Your task to perform on an android device: Open maps Image 0: 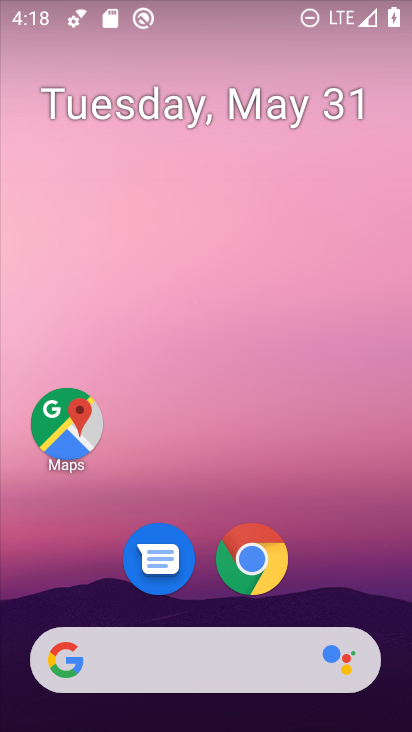
Step 0: drag from (235, 726) to (238, 17)
Your task to perform on an android device: Open maps Image 1: 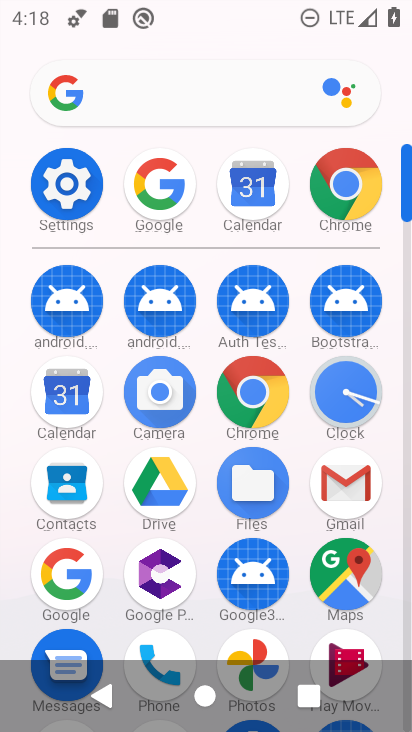
Step 1: click (359, 570)
Your task to perform on an android device: Open maps Image 2: 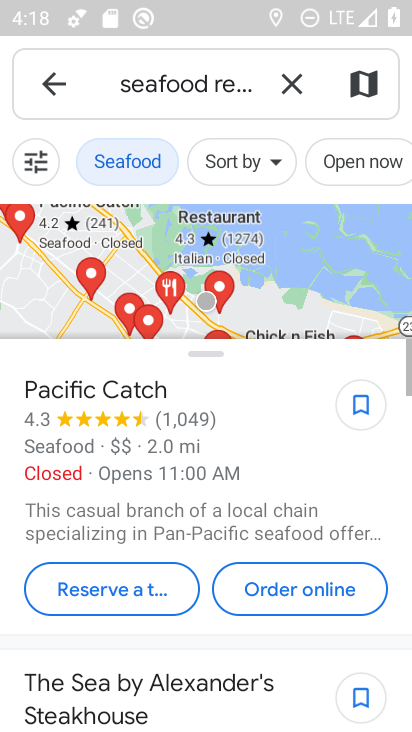
Step 2: task complete